Your task to perform on an android device: create a new album in the google photos Image 0: 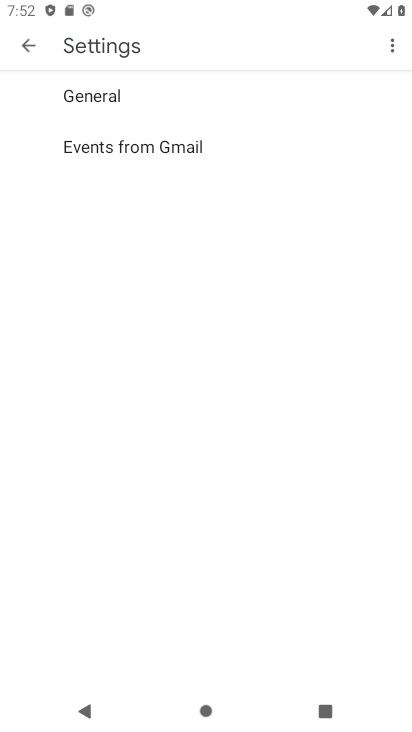
Step 0: press back button
Your task to perform on an android device: create a new album in the google photos Image 1: 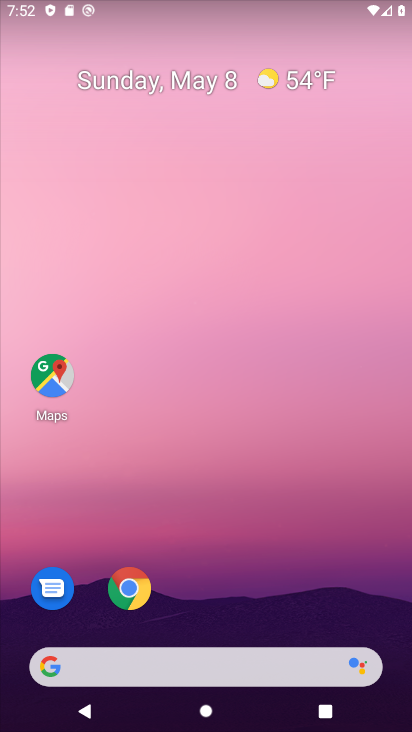
Step 1: drag from (1, 685) to (173, 185)
Your task to perform on an android device: create a new album in the google photos Image 2: 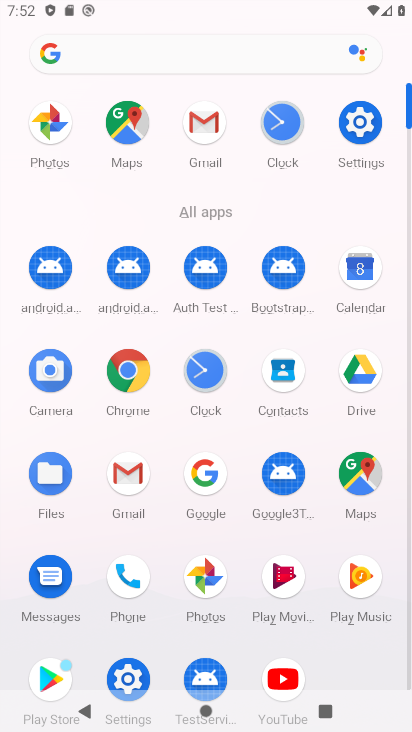
Step 2: click (199, 570)
Your task to perform on an android device: create a new album in the google photos Image 3: 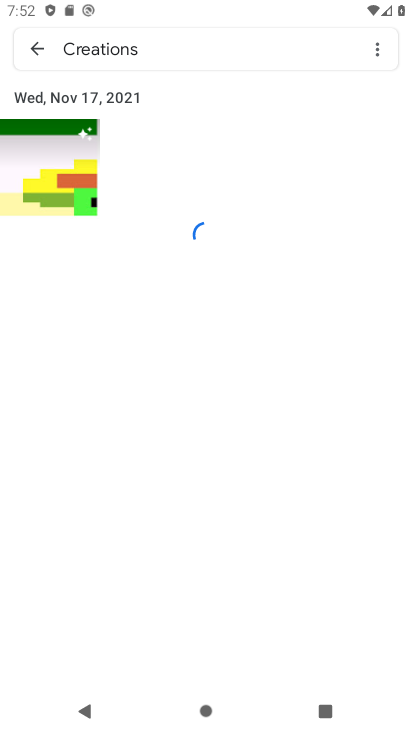
Step 3: press back button
Your task to perform on an android device: create a new album in the google photos Image 4: 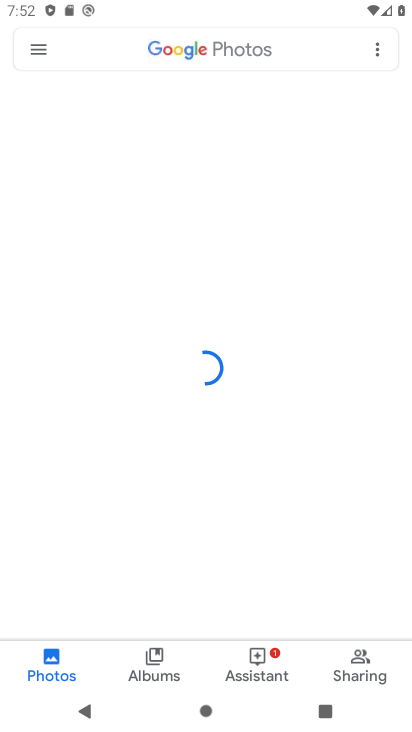
Step 4: click (140, 656)
Your task to perform on an android device: create a new album in the google photos Image 5: 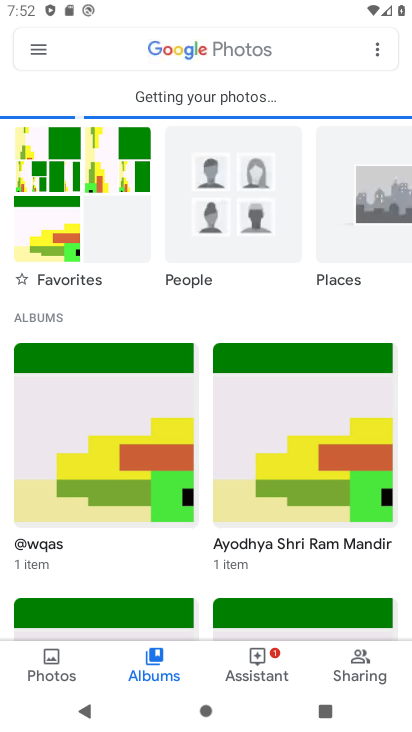
Step 5: click (376, 47)
Your task to perform on an android device: create a new album in the google photos Image 6: 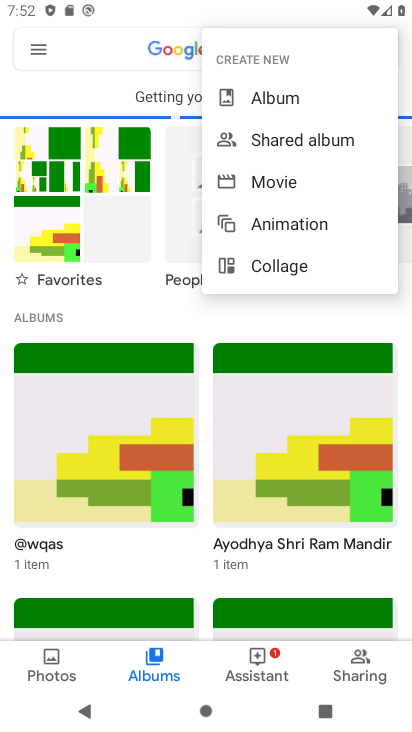
Step 6: click (332, 90)
Your task to perform on an android device: create a new album in the google photos Image 7: 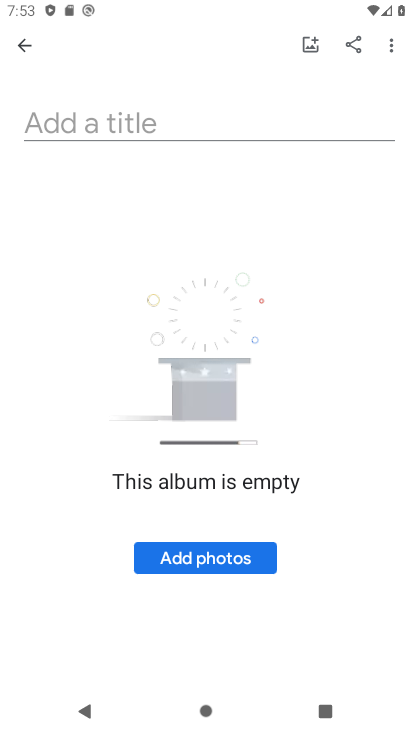
Step 7: click (154, 102)
Your task to perform on an android device: create a new album in the google photos Image 8: 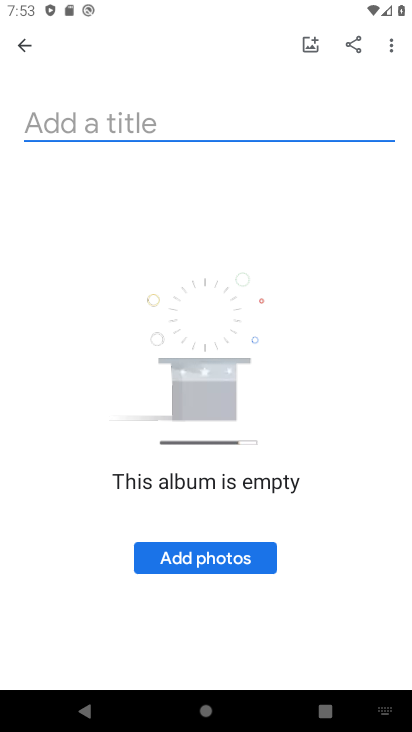
Step 8: click (125, 105)
Your task to perform on an android device: create a new album in the google photos Image 9: 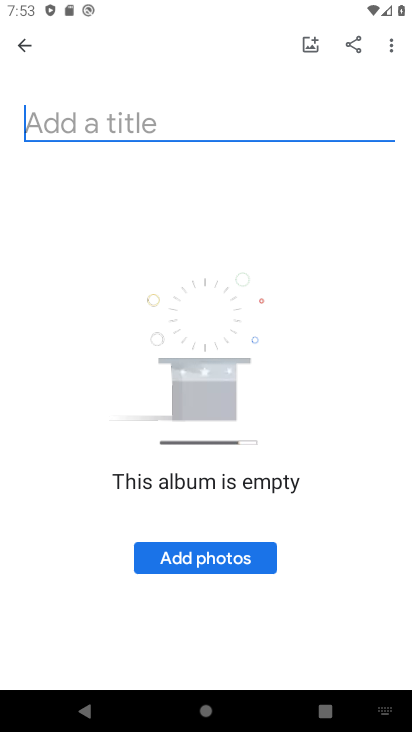
Step 9: click (126, 135)
Your task to perform on an android device: create a new album in the google photos Image 10: 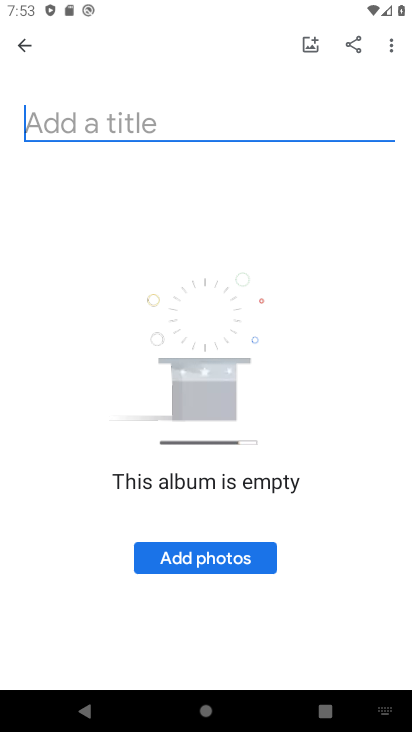
Step 10: type "fgfgdd"
Your task to perform on an android device: create a new album in the google photos Image 11: 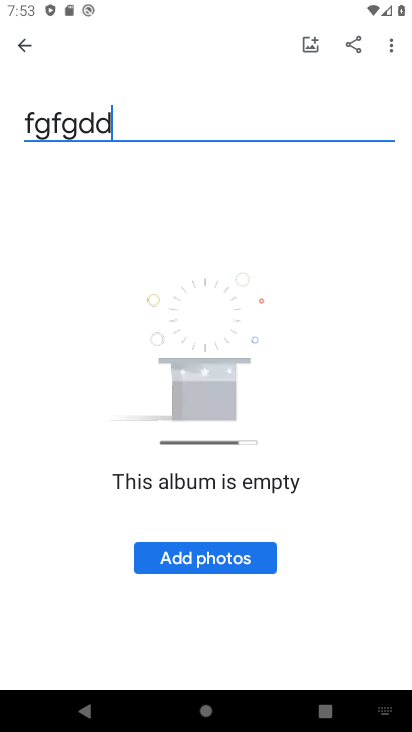
Step 11: type ""
Your task to perform on an android device: create a new album in the google photos Image 12: 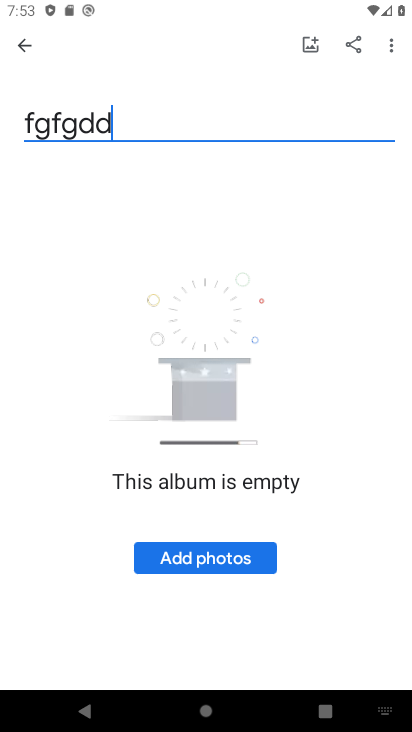
Step 12: click (173, 571)
Your task to perform on an android device: create a new album in the google photos Image 13: 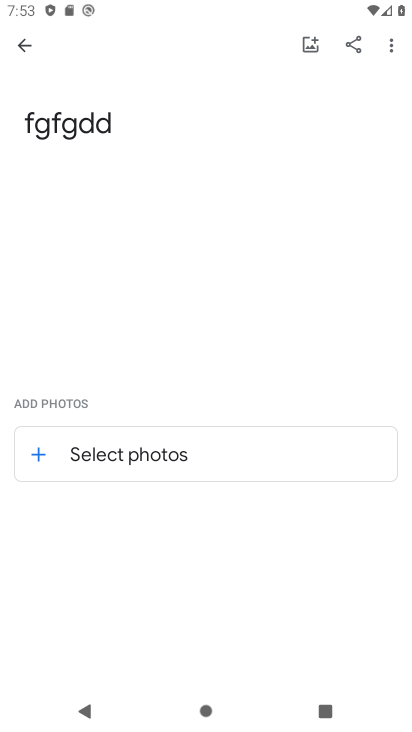
Step 13: click (124, 452)
Your task to perform on an android device: create a new album in the google photos Image 14: 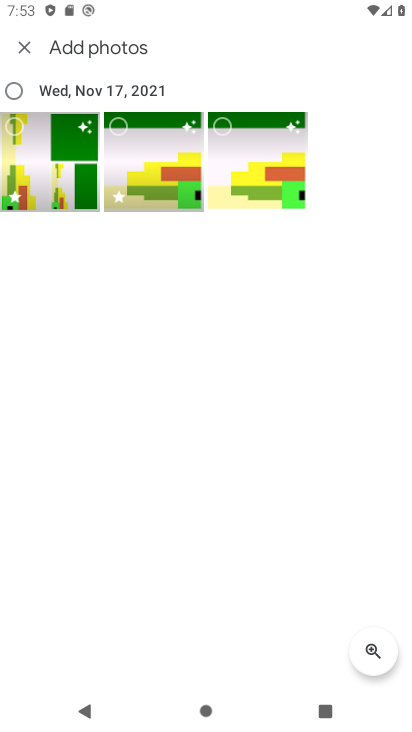
Step 14: click (42, 142)
Your task to perform on an android device: create a new album in the google photos Image 15: 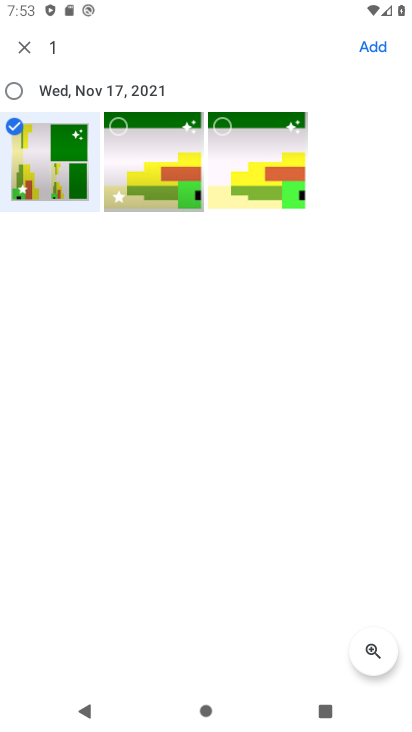
Step 15: click (368, 43)
Your task to perform on an android device: create a new album in the google photos Image 16: 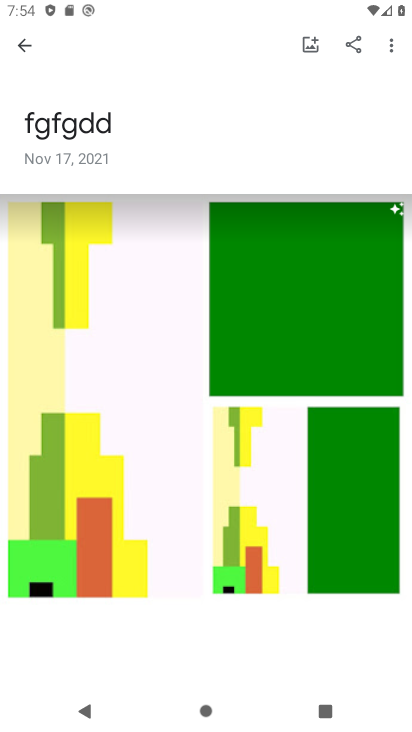
Step 16: task complete